Your task to perform on an android device: turn on location history Image 0: 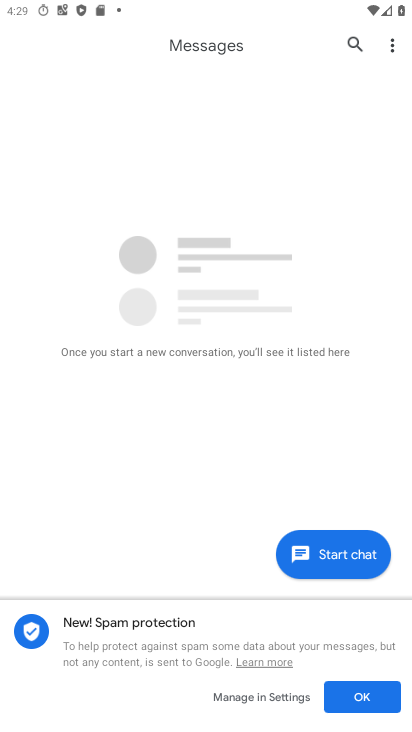
Step 0: press home button
Your task to perform on an android device: turn on location history Image 1: 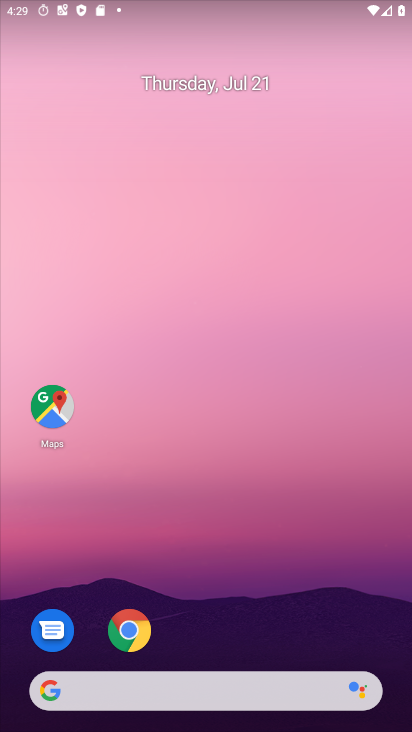
Step 1: drag from (187, 680) to (233, 257)
Your task to perform on an android device: turn on location history Image 2: 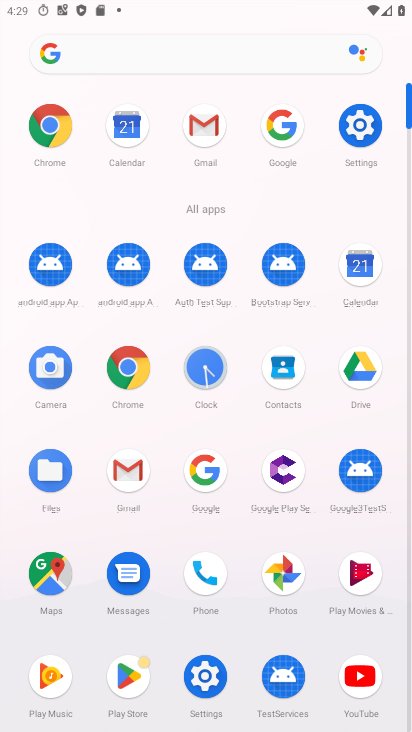
Step 2: click (361, 127)
Your task to perform on an android device: turn on location history Image 3: 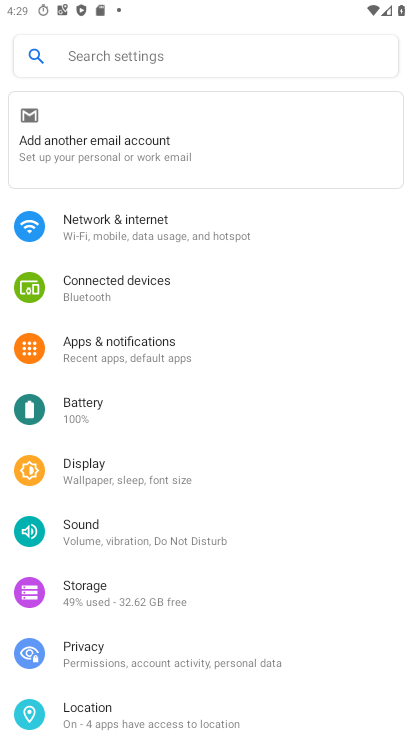
Step 3: drag from (165, 637) to (165, 459)
Your task to perform on an android device: turn on location history Image 4: 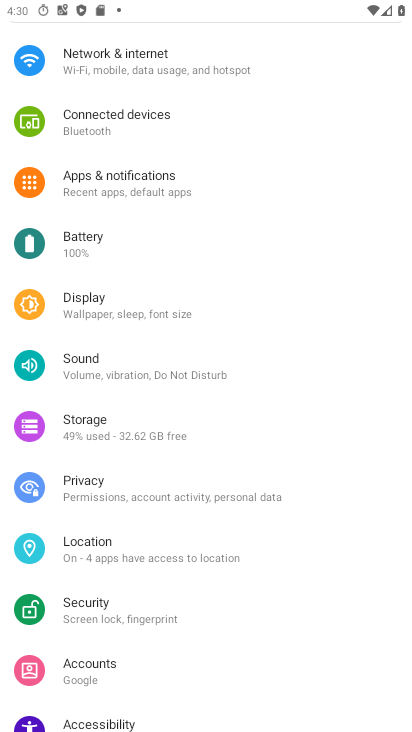
Step 4: click (101, 553)
Your task to perform on an android device: turn on location history Image 5: 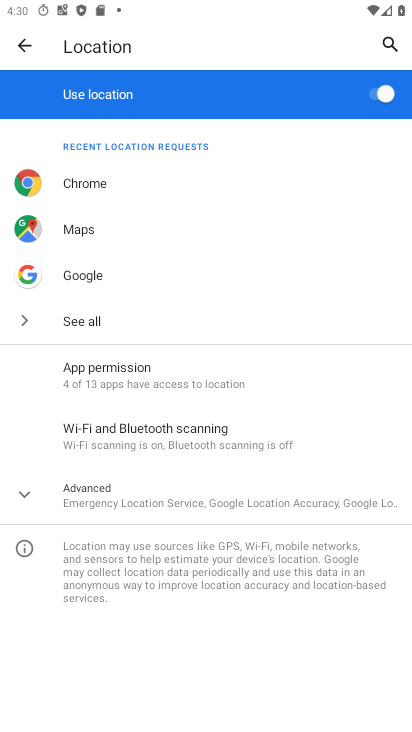
Step 5: click (186, 499)
Your task to perform on an android device: turn on location history Image 6: 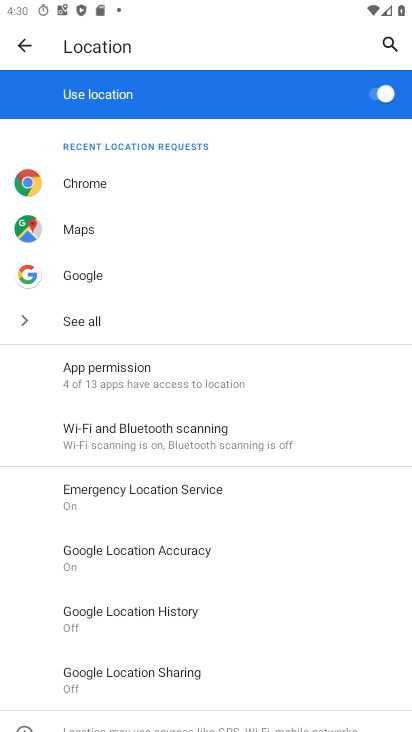
Step 6: click (166, 613)
Your task to perform on an android device: turn on location history Image 7: 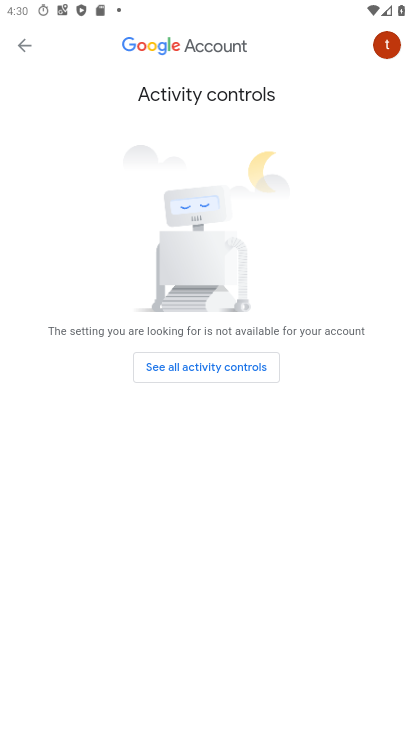
Step 7: click (215, 368)
Your task to perform on an android device: turn on location history Image 8: 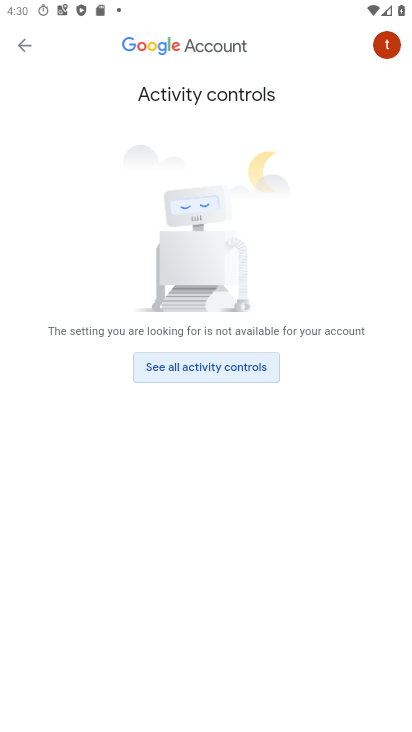
Step 8: click (215, 368)
Your task to perform on an android device: turn on location history Image 9: 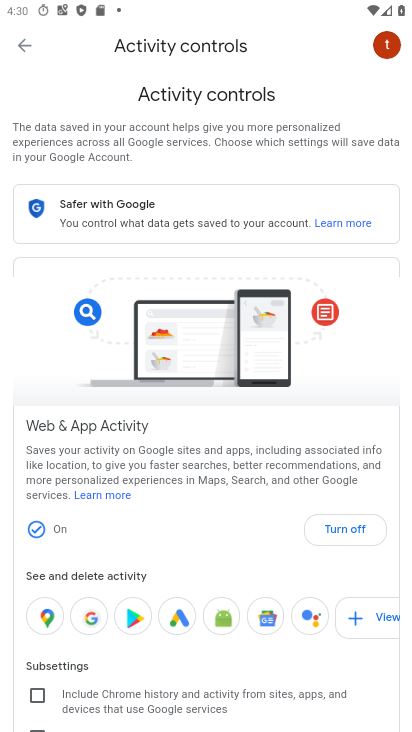
Step 9: task complete